Your task to perform on an android device: add a contact in the contacts app Image 0: 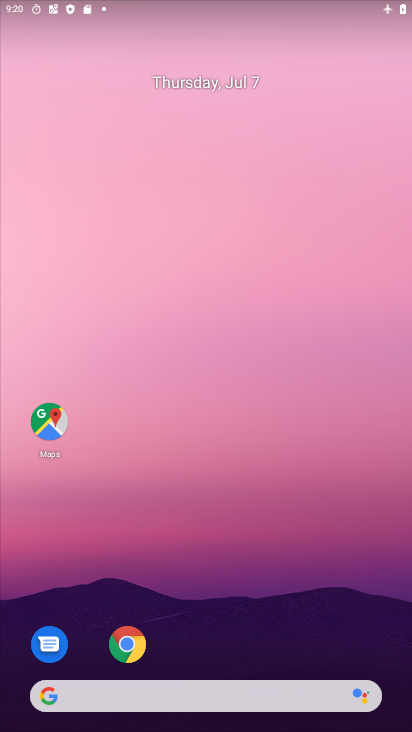
Step 0: drag from (283, 613) to (268, 213)
Your task to perform on an android device: add a contact in the contacts app Image 1: 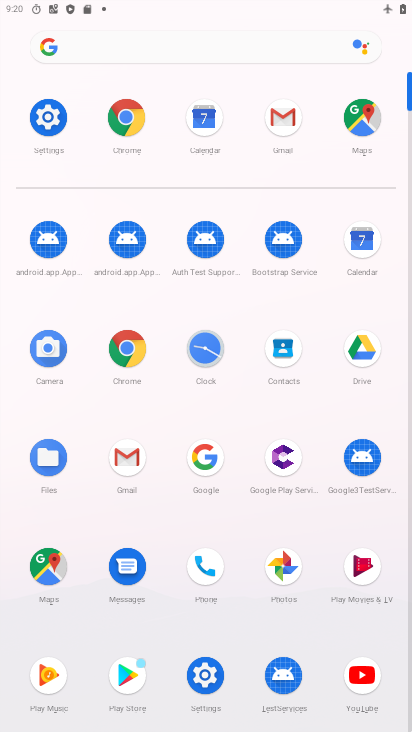
Step 1: click (288, 352)
Your task to perform on an android device: add a contact in the contacts app Image 2: 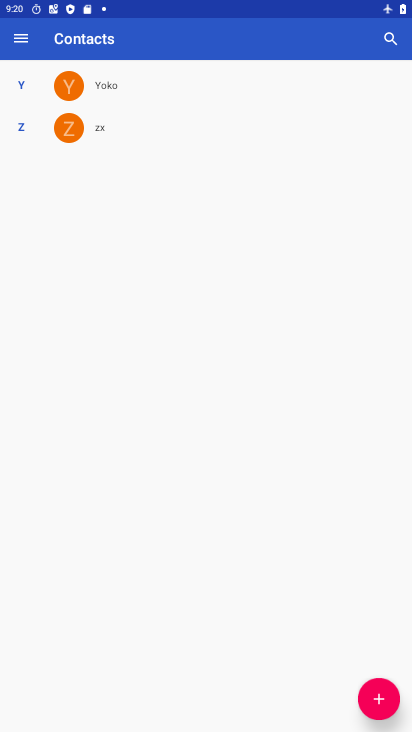
Step 2: click (380, 711)
Your task to perform on an android device: add a contact in the contacts app Image 3: 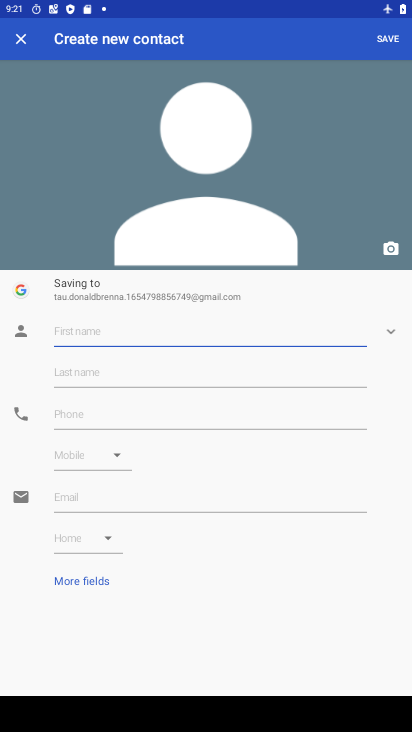
Step 3: type "zc"
Your task to perform on an android device: add a contact in the contacts app Image 4: 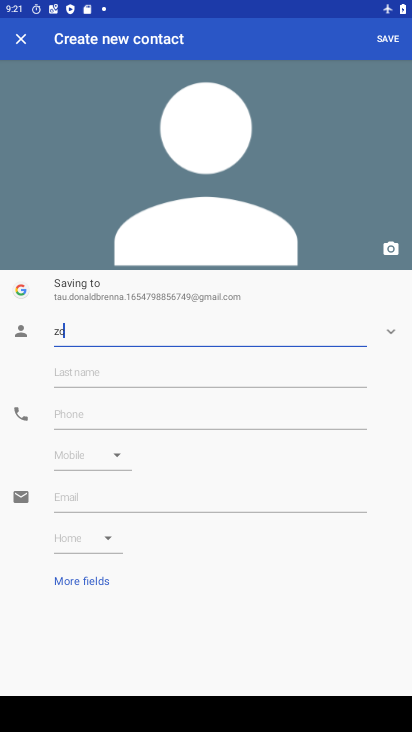
Step 4: click (394, 41)
Your task to perform on an android device: add a contact in the contacts app Image 5: 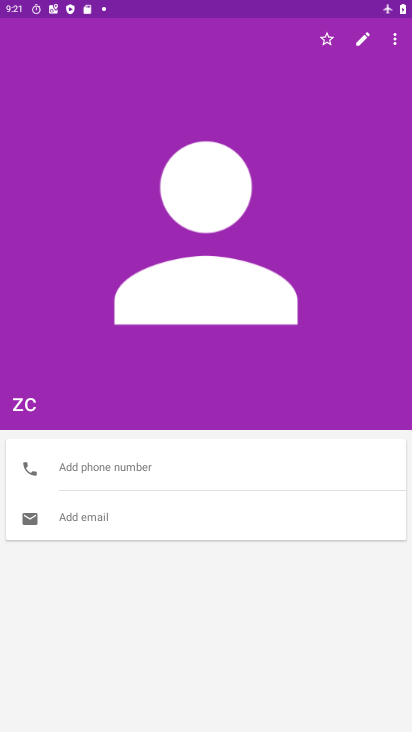
Step 5: task complete